Your task to perform on an android device: Go to calendar. Show me events next week Image 0: 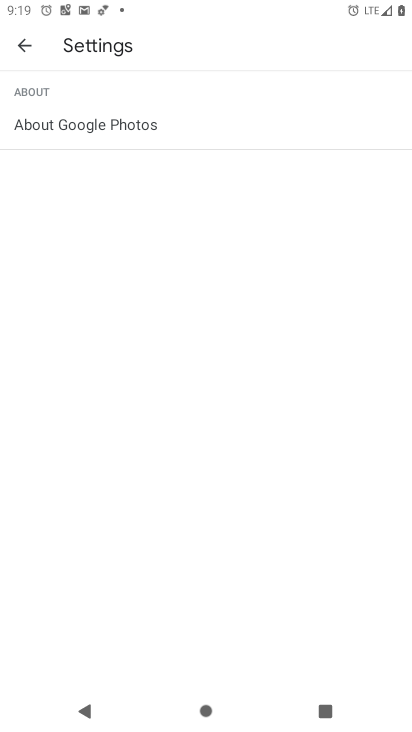
Step 0: press home button
Your task to perform on an android device: Go to calendar. Show me events next week Image 1: 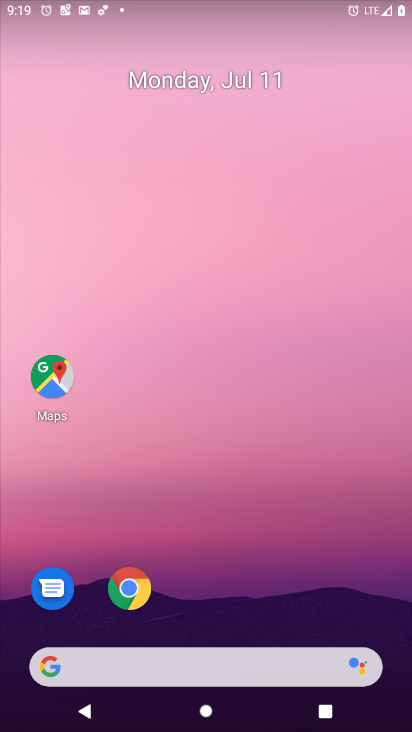
Step 1: drag from (208, 654) to (254, 197)
Your task to perform on an android device: Go to calendar. Show me events next week Image 2: 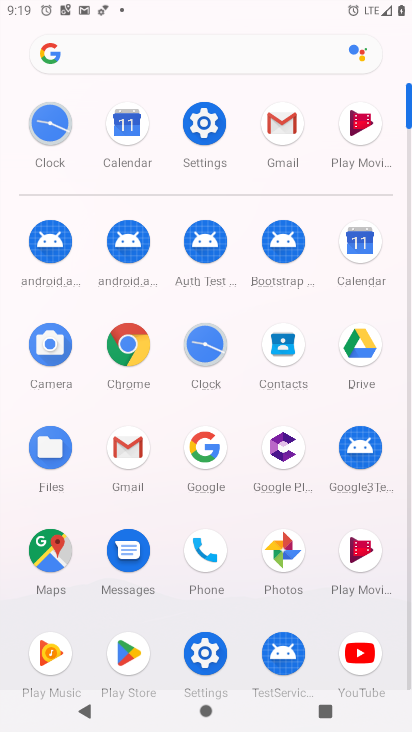
Step 2: click (365, 249)
Your task to perform on an android device: Go to calendar. Show me events next week Image 3: 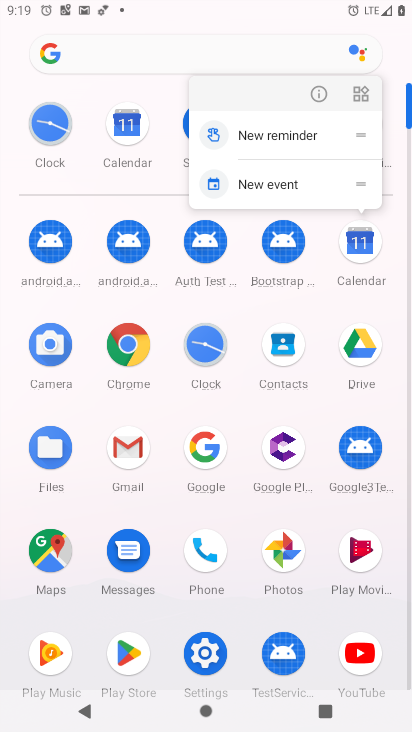
Step 3: click (361, 250)
Your task to perform on an android device: Go to calendar. Show me events next week Image 4: 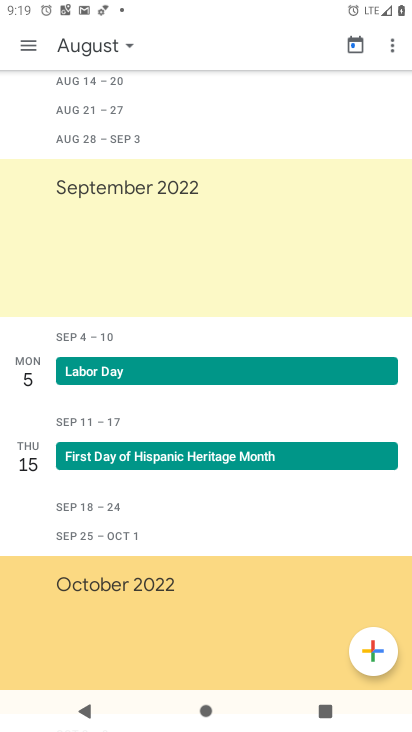
Step 4: click (82, 53)
Your task to perform on an android device: Go to calendar. Show me events next week Image 5: 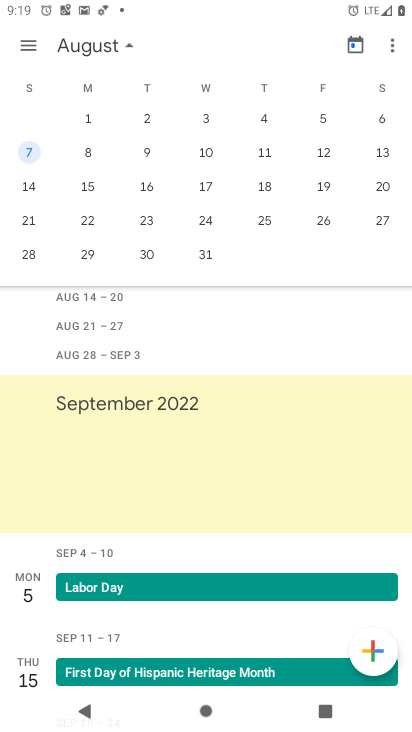
Step 5: drag from (38, 215) to (368, 211)
Your task to perform on an android device: Go to calendar. Show me events next week Image 6: 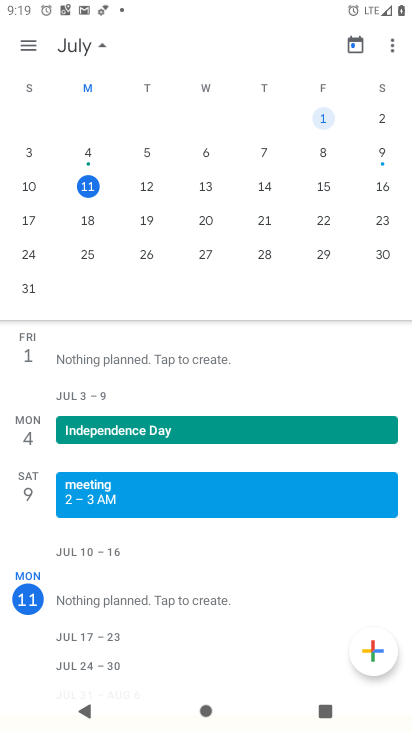
Step 6: click (30, 224)
Your task to perform on an android device: Go to calendar. Show me events next week Image 7: 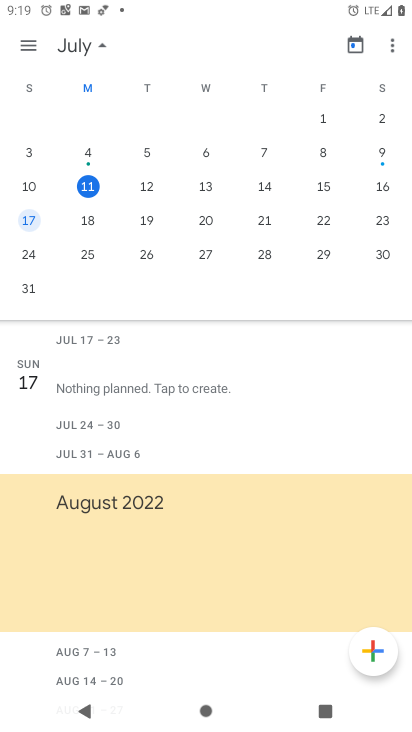
Step 7: click (21, 36)
Your task to perform on an android device: Go to calendar. Show me events next week Image 8: 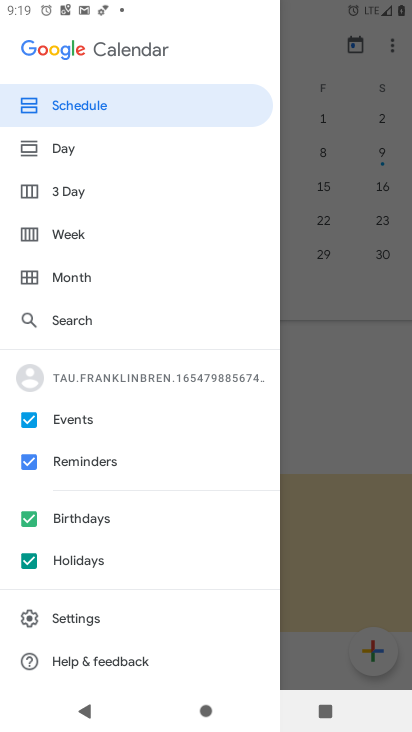
Step 8: click (89, 231)
Your task to perform on an android device: Go to calendar. Show me events next week Image 9: 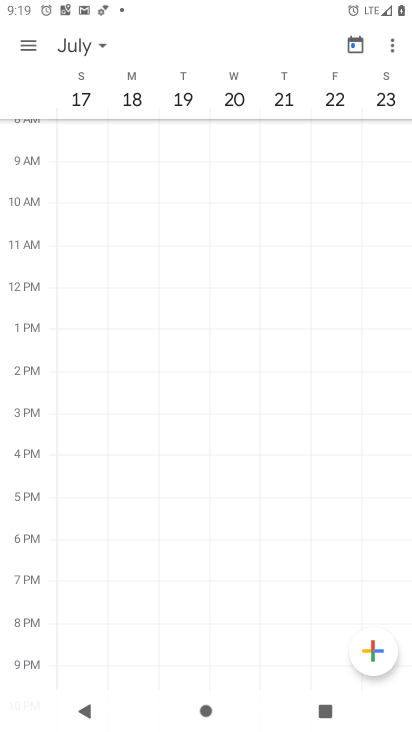
Step 9: click (29, 45)
Your task to perform on an android device: Go to calendar. Show me events next week Image 10: 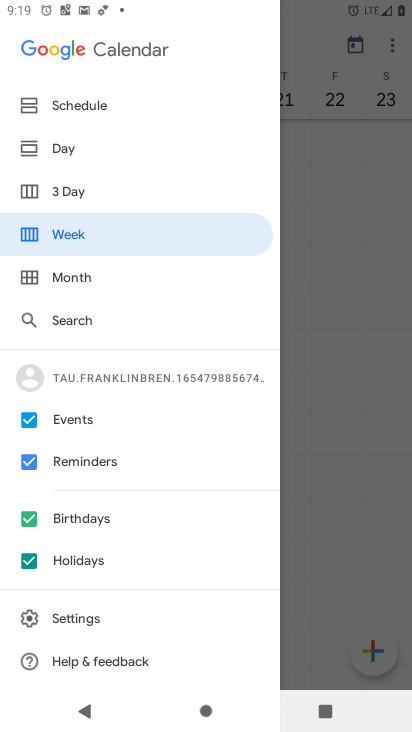
Step 10: click (77, 107)
Your task to perform on an android device: Go to calendar. Show me events next week Image 11: 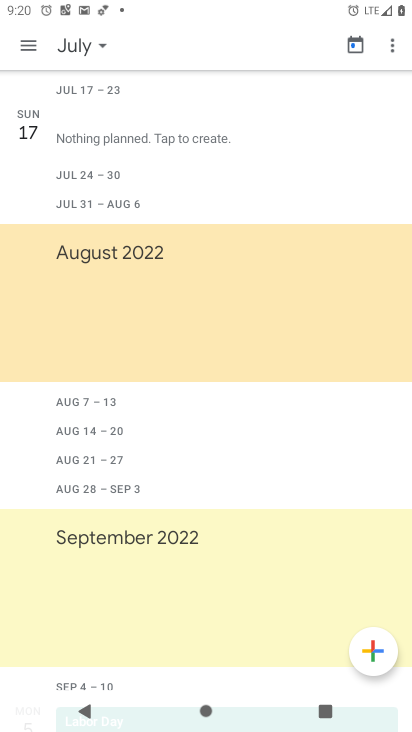
Step 11: task complete